Your task to perform on an android device: toggle improve location accuracy Image 0: 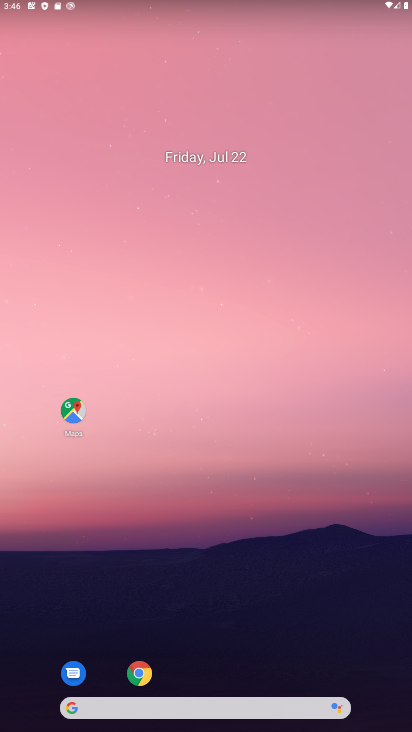
Step 0: press home button
Your task to perform on an android device: toggle improve location accuracy Image 1: 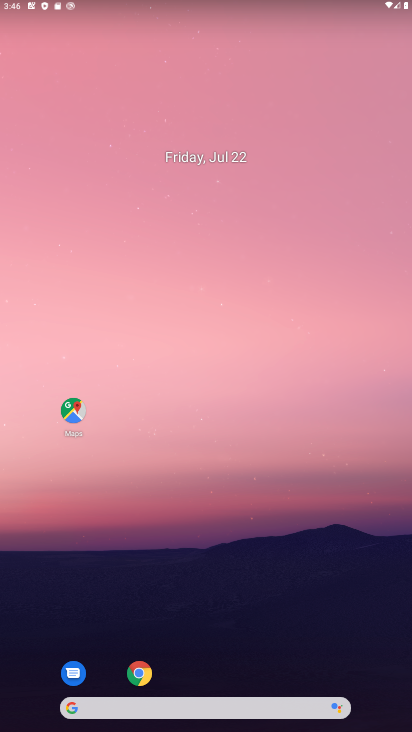
Step 1: drag from (220, 665) to (192, 87)
Your task to perform on an android device: toggle improve location accuracy Image 2: 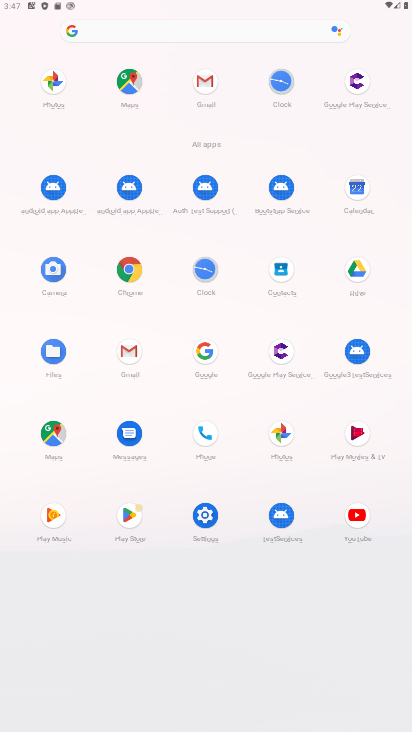
Step 2: click (198, 503)
Your task to perform on an android device: toggle improve location accuracy Image 3: 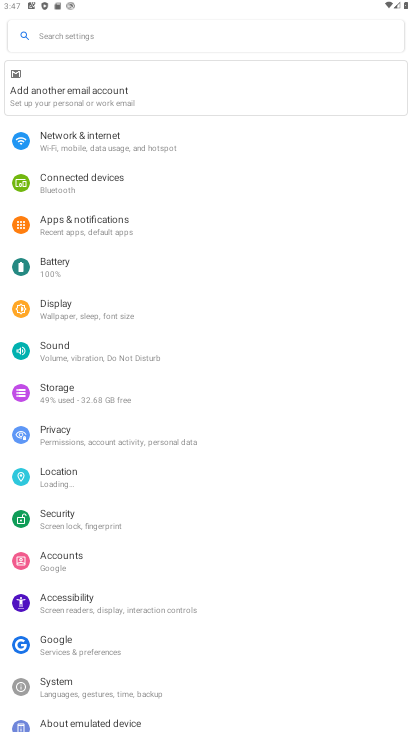
Step 3: click (81, 475)
Your task to perform on an android device: toggle improve location accuracy Image 4: 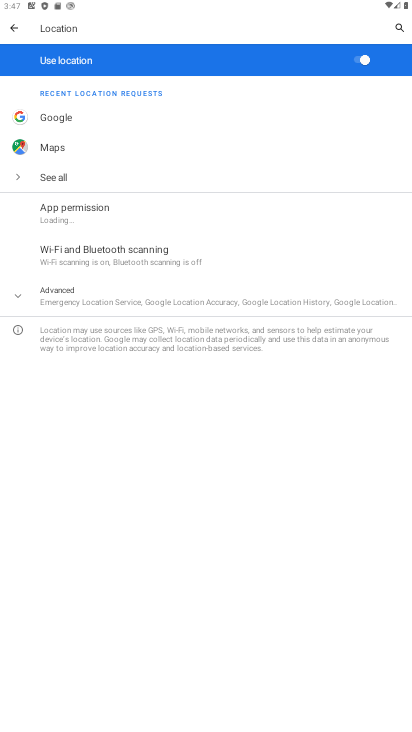
Step 4: click (41, 290)
Your task to perform on an android device: toggle improve location accuracy Image 5: 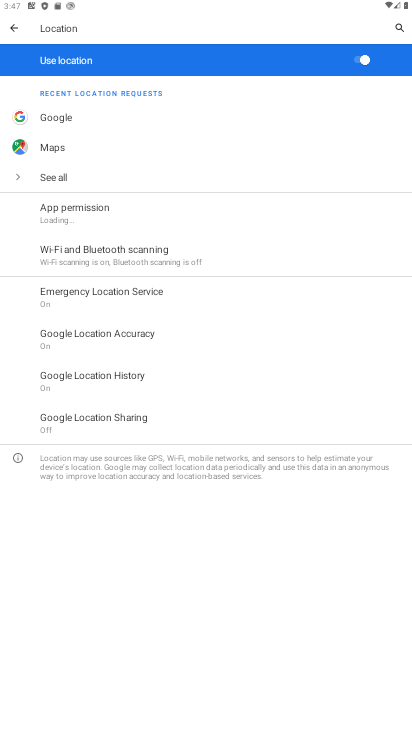
Step 5: click (101, 334)
Your task to perform on an android device: toggle improve location accuracy Image 6: 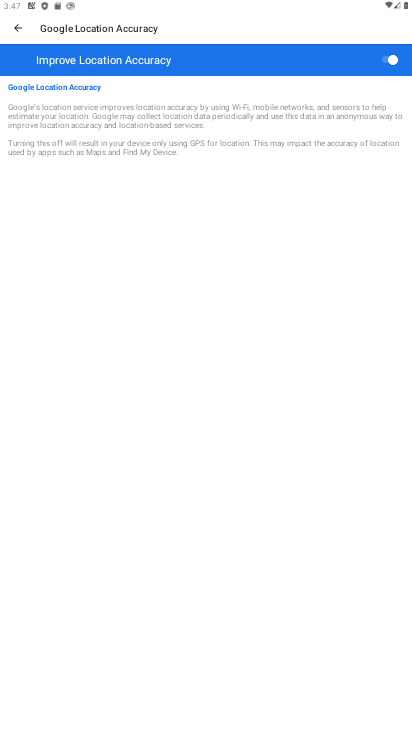
Step 6: click (386, 61)
Your task to perform on an android device: toggle improve location accuracy Image 7: 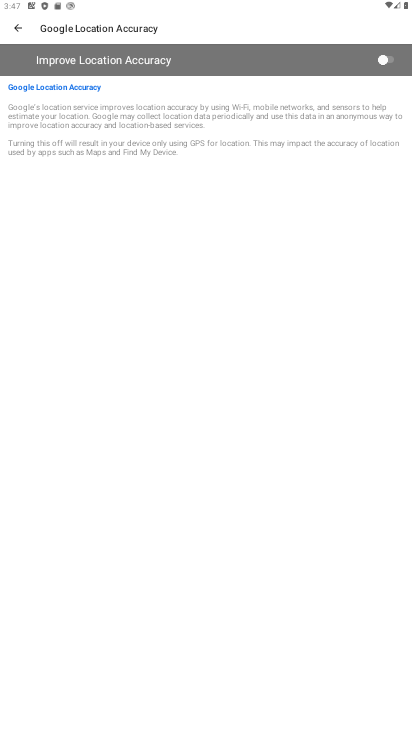
Step 7: task complete